Your task to perform on an android device: turn off data saver in the chrome app Image 0: 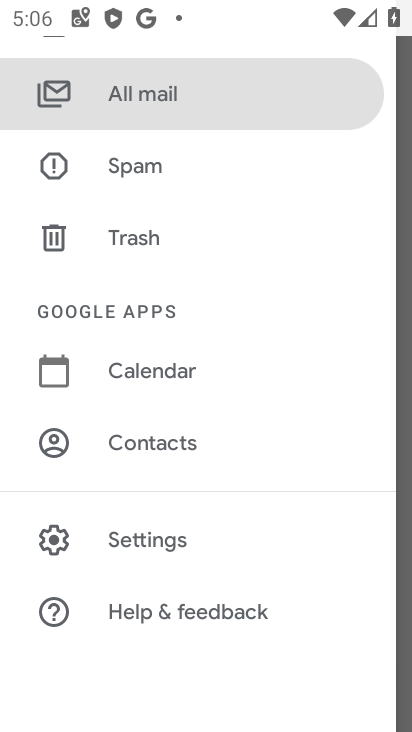
Step 0: press home button
Your task to perform on an android device: turn off data saver in the chrome app Image 1: 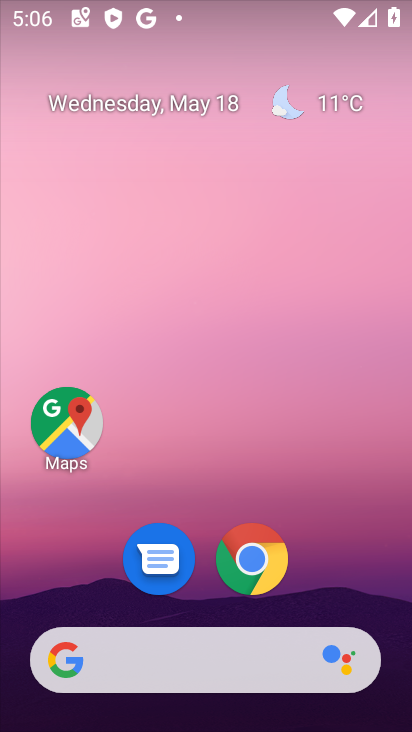
Step 1: click (254, 550)
Your task to perform on an android device: turn off data saver in the chrome app Image 2: 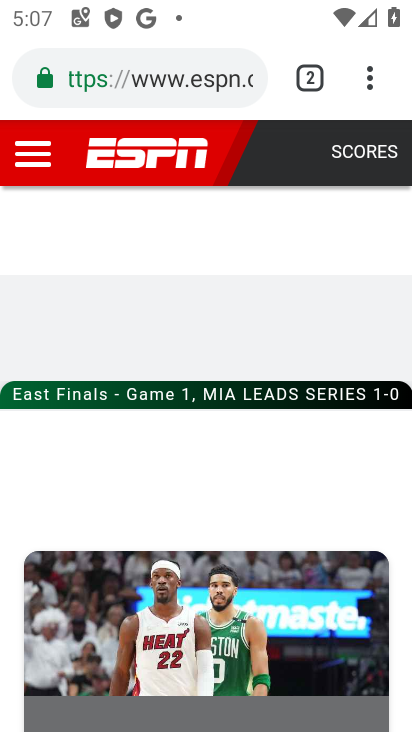
Step 2: drag from (366, 77) to (125, 614)
Your task to perform on an android device: turn off data saver in the chrome app Image 3: 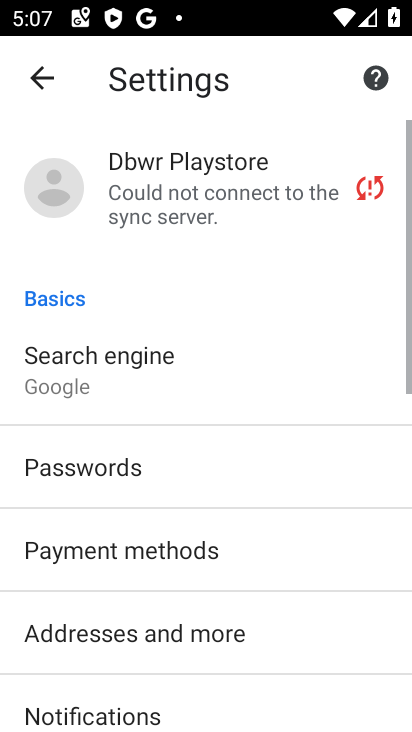
Step 3: drag from (119, 651) to (239, 82)
Your task to perform on an android device: turn off data saver in the chrome app Image 4: 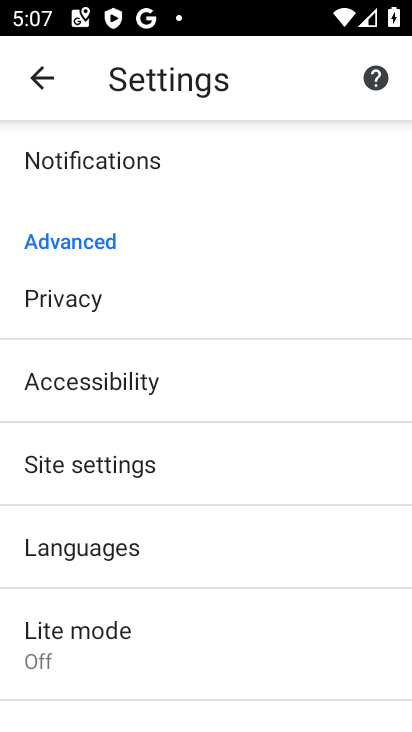
Step 4: click (90, 641)
Your task to perform on an android device: turn off data saver in the chrome app Image 5: 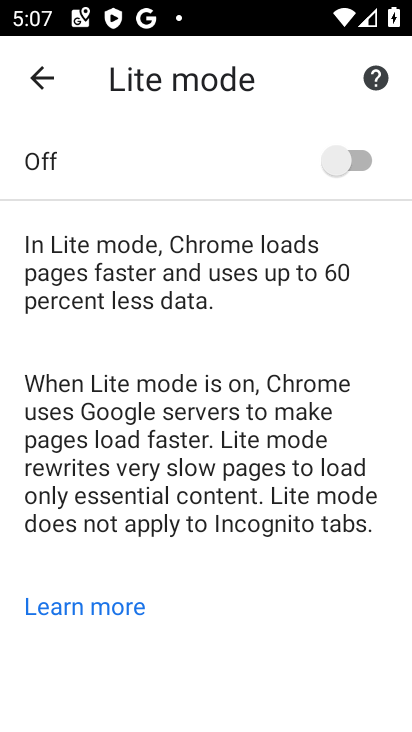
Step 5: click (337, 156)
Your task to perform on an android device: turn off data saver in the chrome app Image 6: 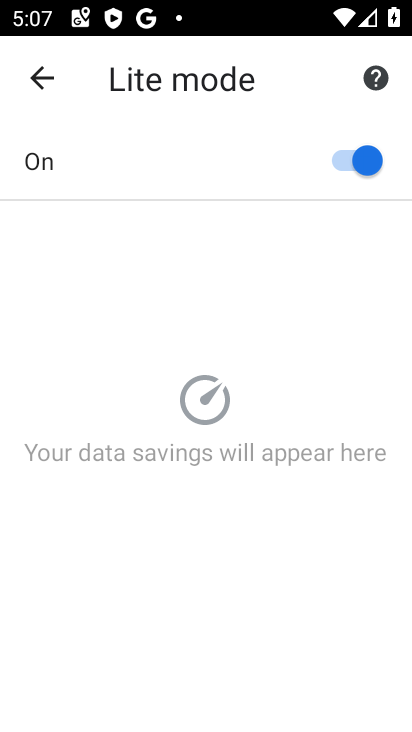
Step 6: click (337, 156)
Your task to perform on an android device: turn off data saver in the chrome app Image 7: 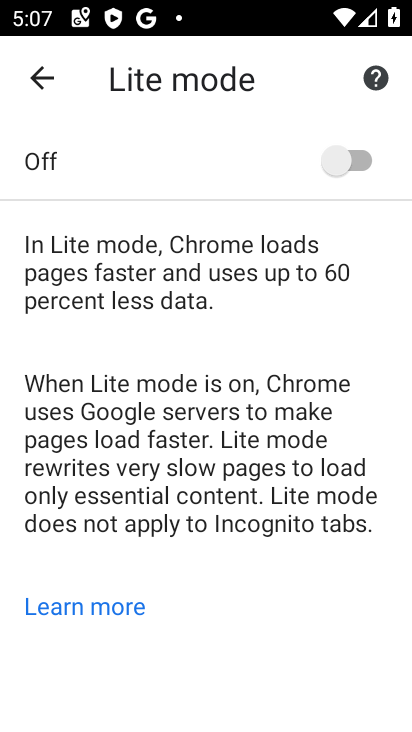
Step 7: task complete